Your task to perform on an android device: open chrome privacy settings Image 0: 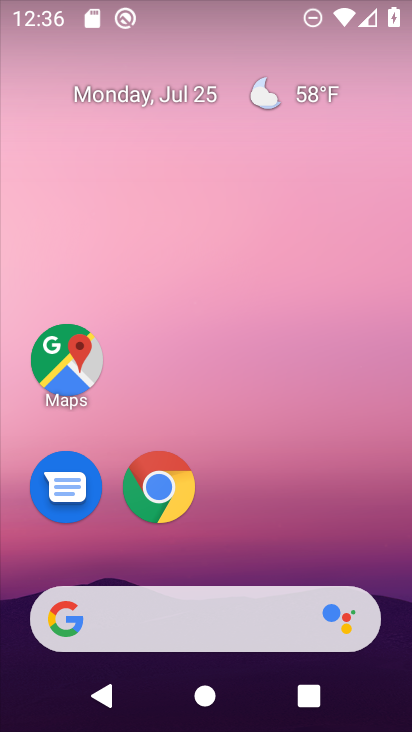
Step 0: click (151, 493)
Your task to perform on an android device: open chrome privacy settings Image 1: 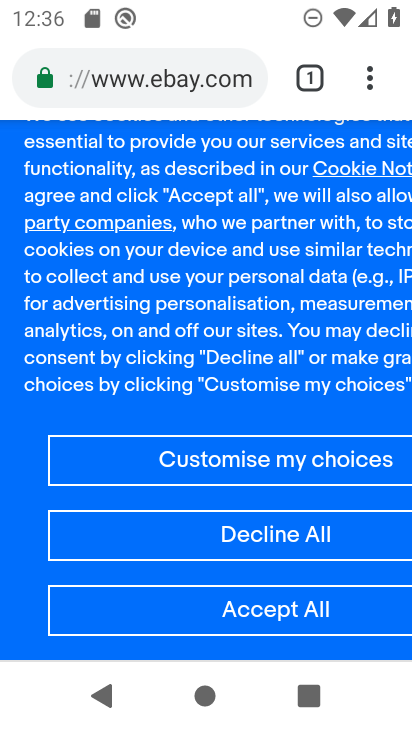
Step 1: drag from (368, 76) to (116, 547)
Your task to perform on an android device: open chrome privacy settings Image 2: 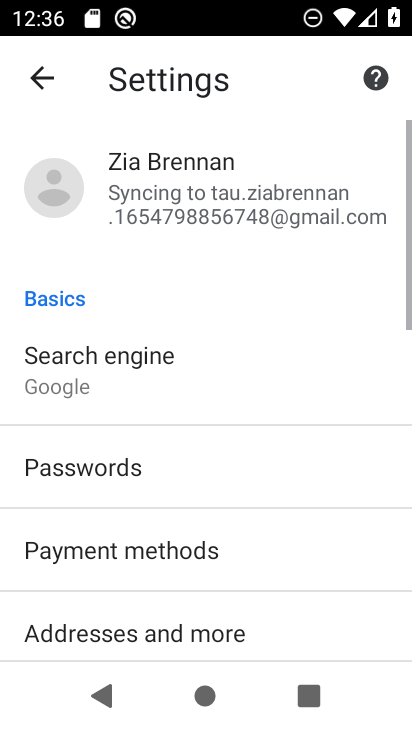
Step 2: drag from (124, 641) to (250, 3)
Your task to perform on an android device: open chrome privacy settings Image 3: 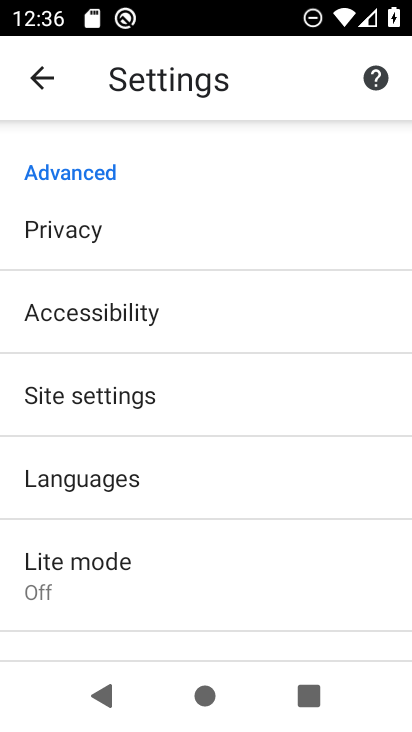
Step 3: click (79, 238)
Your task to perform on an android device: open chrome privacy settings Image 4: 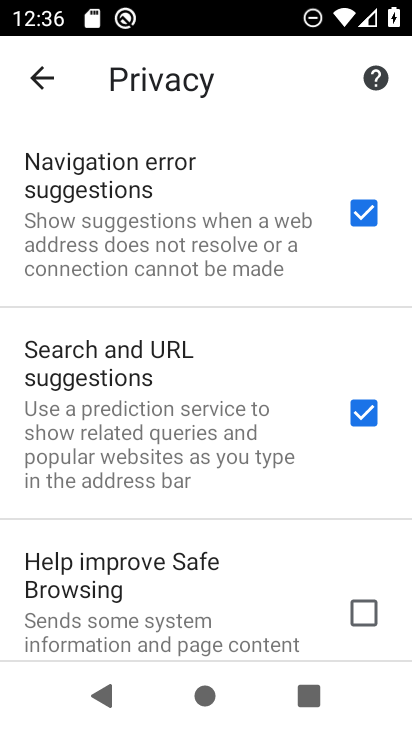
Step 4: task complete